Your task to perform on an android device: Open Reddit.com Image 0: 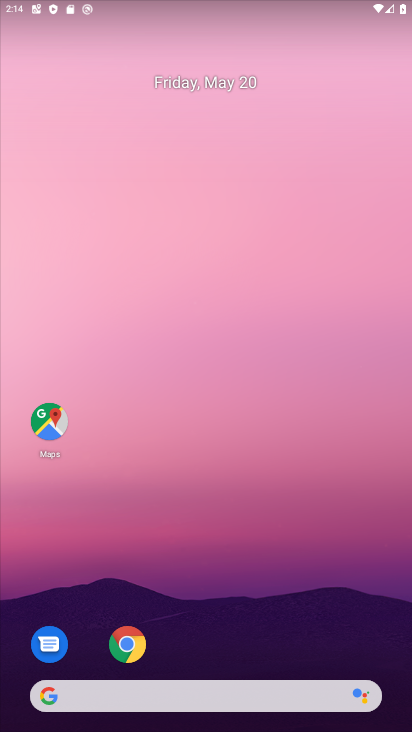
Step 0: click (123, 651)
Your task to perform on an android device: Open Reddit.com Image 1: 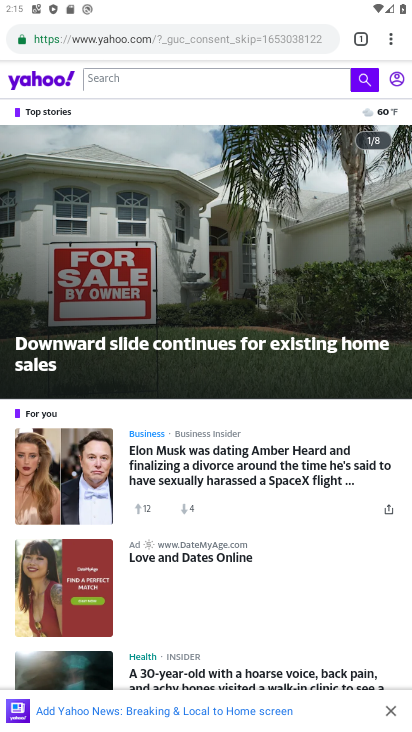
Step 1: click (238, 40)
Your task to perform on an android device: Open Reddit.com Image 2: 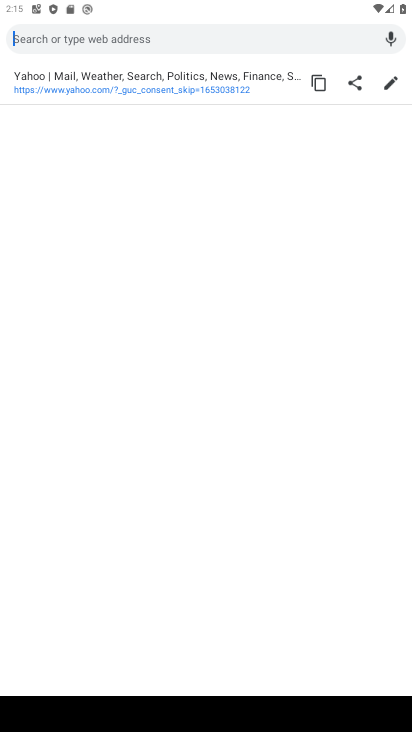
Step 2: type "reddit.com"
Your task to perform on an android device: Open Reddit.com Image 3: 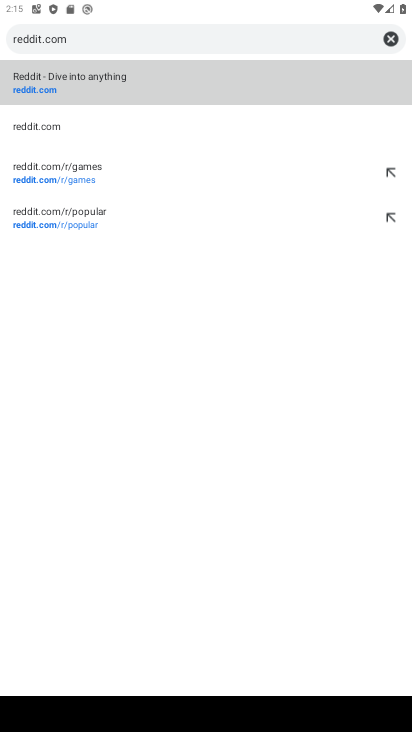
Step 3: click (91, 85)
Your task to perform on an android device: Open Reddit.com Image 4: 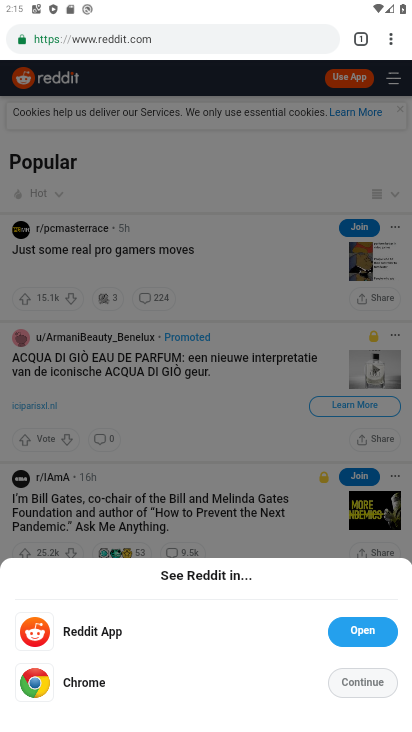
Step 4: click (365, 677)
Your task to perform on an android device: Open Reddit.com Image 5: 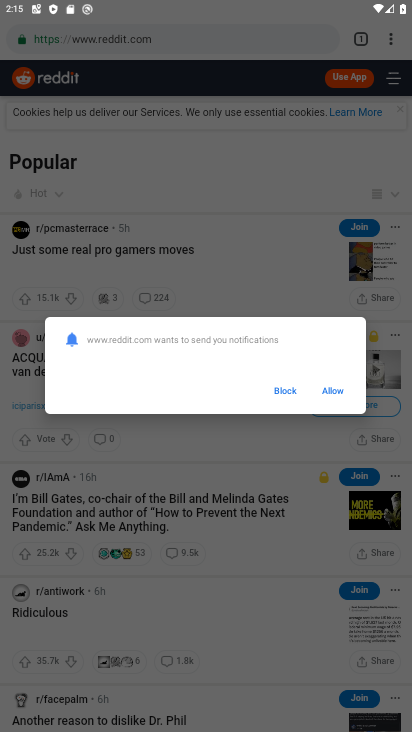
Step 5: click (319, 394)
Your task to perform on an android device: Open Reddit.com Image 6: 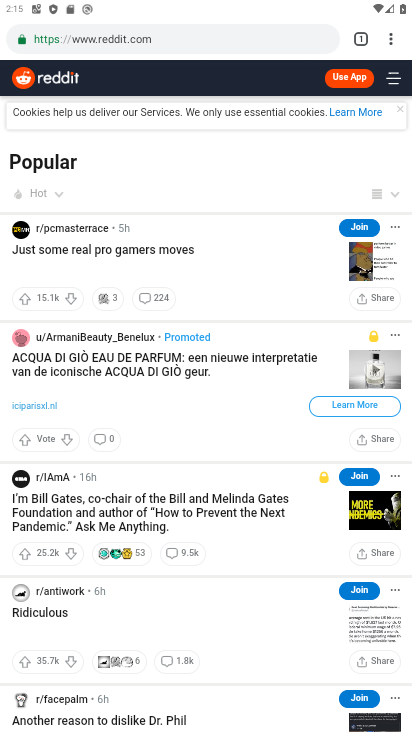
Step 6: task complete